Your task to perform on an android device: Go to sound settings Image 0: 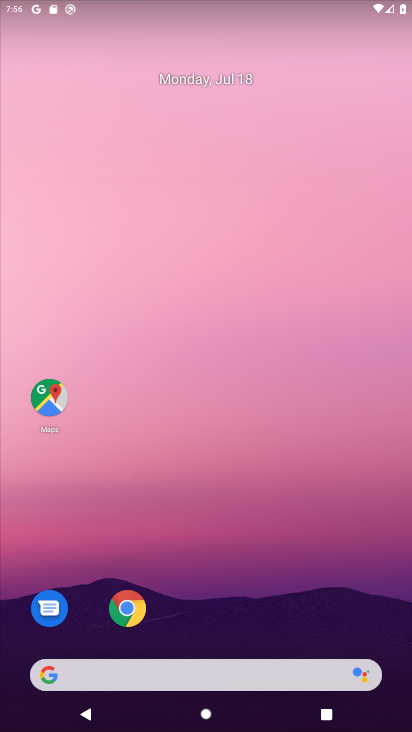
Step 0: drag from (222, 651) to (153, 92)
Your task to perform on an android device: Go to sound settings Image 1: 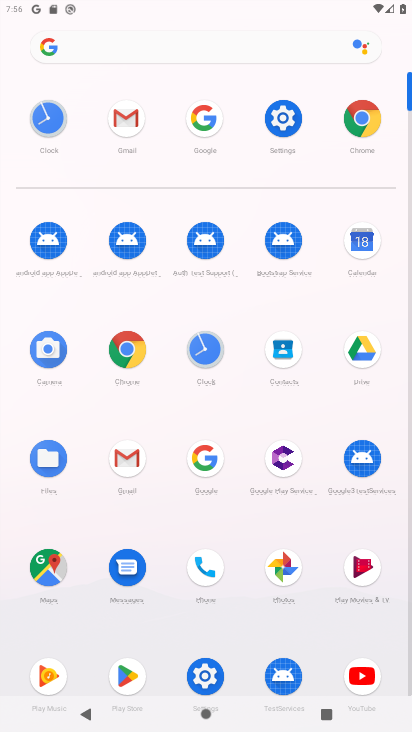
Step 1: click (284, 117)
Your task to perform on an android device: Go to sound settings Image 2: 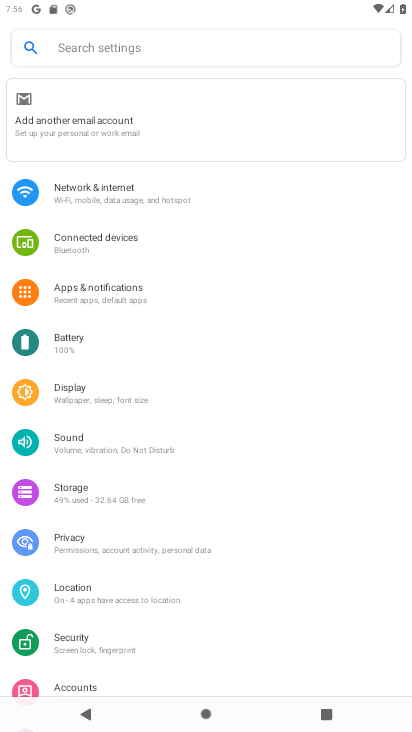
Step 2: click (89, 429)
Your task to perform on an android device: Go to sound settings Image 3: 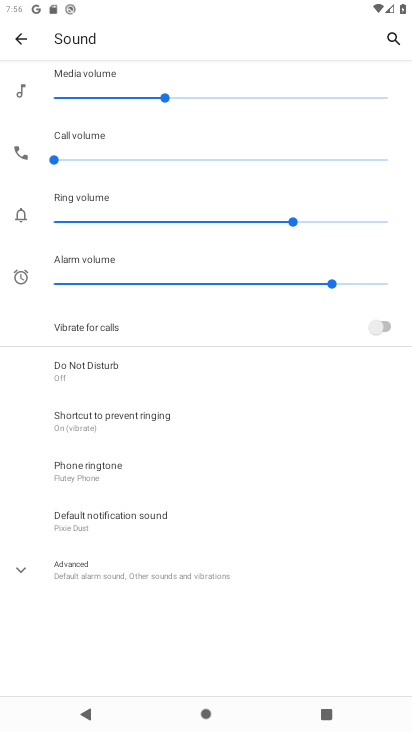
Step 3: click (46, 583)
Your task to perform on an android device: Go to sound settings Image 4: 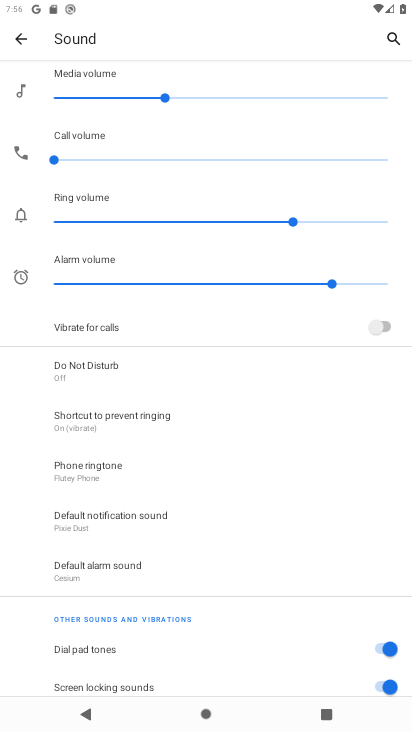
Step 4: task complete